Your task to perform on an android device: What is the news today? Image 0: 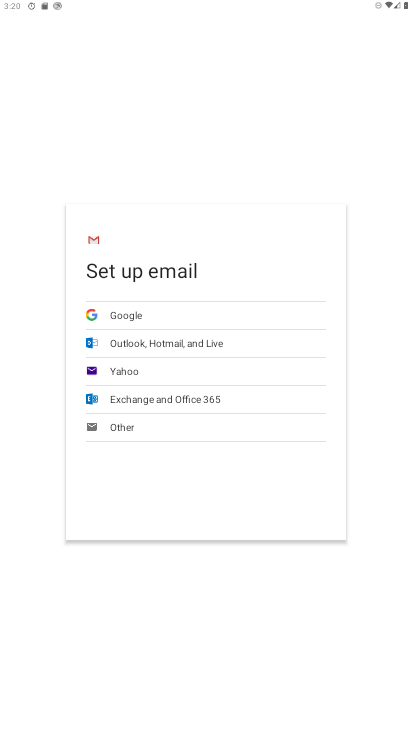
Step 0: drag from (275, 582) to (307, 352)
Your task to perform on an android device: What is the news today? Image 1: 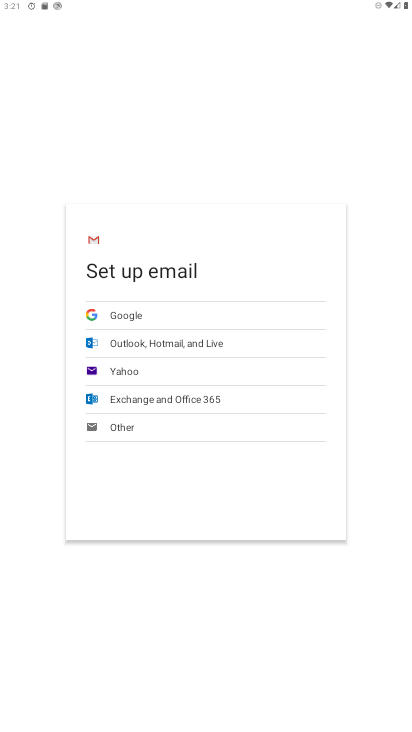
Step 1: drag from (177, 575) to (244, 354)
Your task to perform on an android device: What is the news today? Image 2: 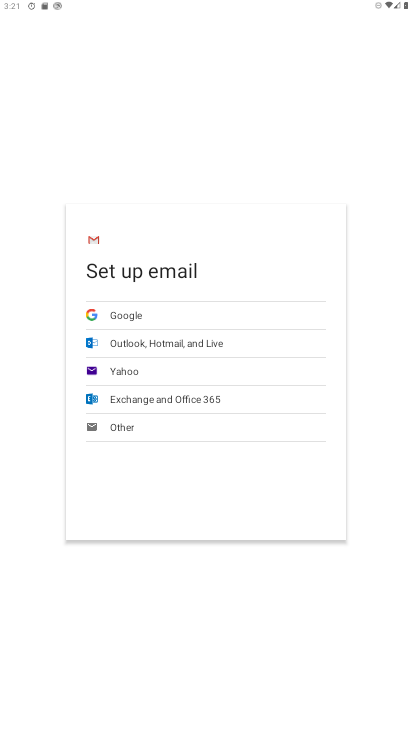
Step 2: drag from (85, 625) to (242, 229)
Your task to perform on an android device: What is the news today? Image 3: 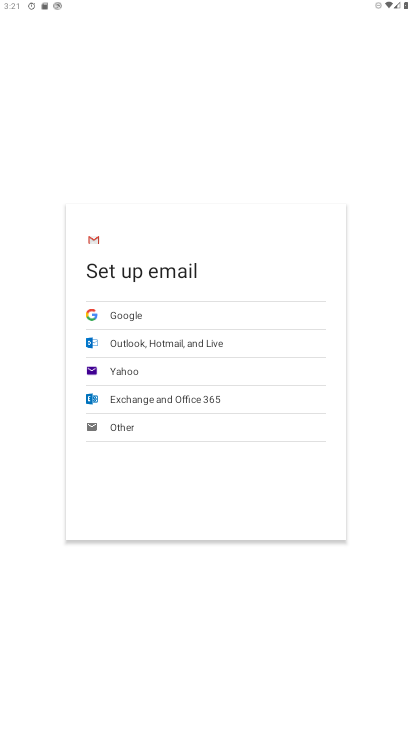
Step 3: drag from (229, 436) to (309, 198)
Your task to perform on an android device: What is the news today? Image 4: 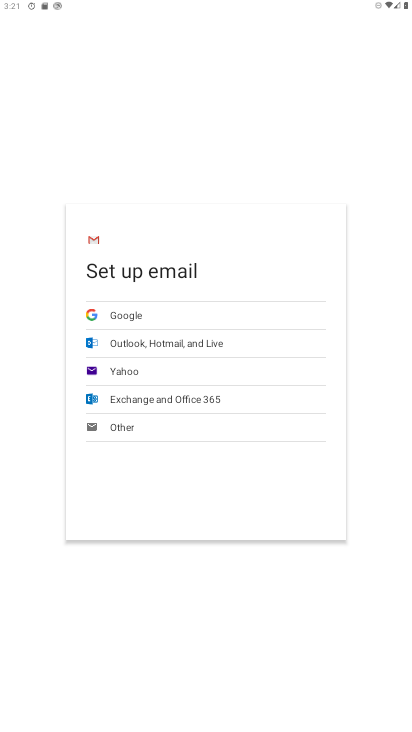
Step 4: press home button
Your task to perform on an android device: What is the news today? Image 5: 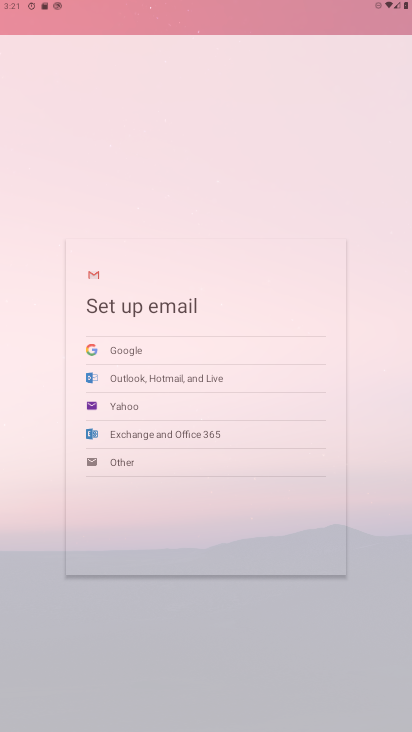
Step 5: drag from (302, 451) to (364, 243)
Your task to perform on an android device: What is the news today? Image 6: 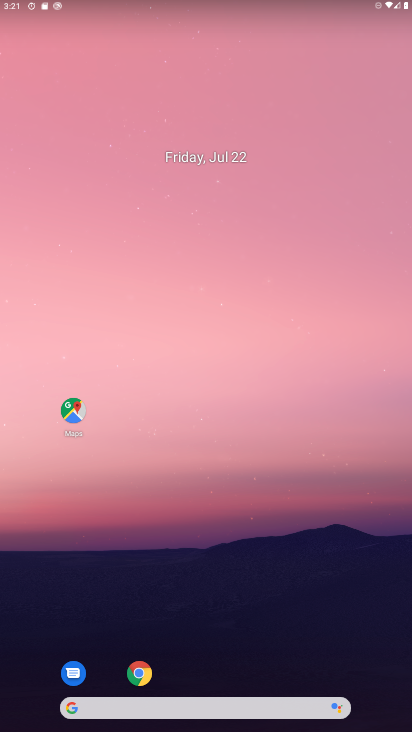
Step 6: drag from (158, 668) to (189, 235)
Your task to perform on an android device: What is the news today? Image 7: 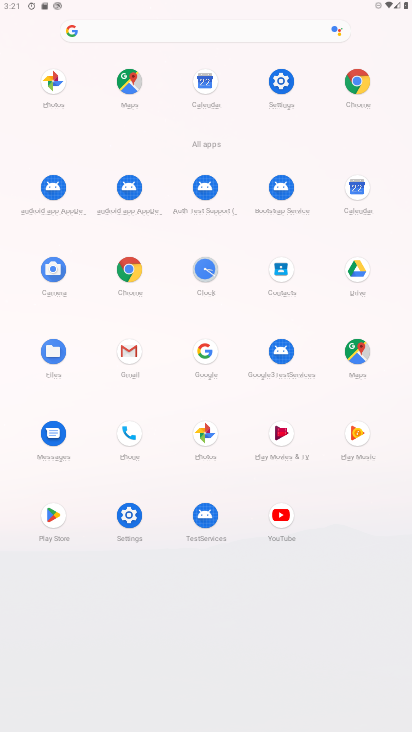
Step 7: click (128, 28)
Your task to perform on an android device: What is the news today? Image 8: 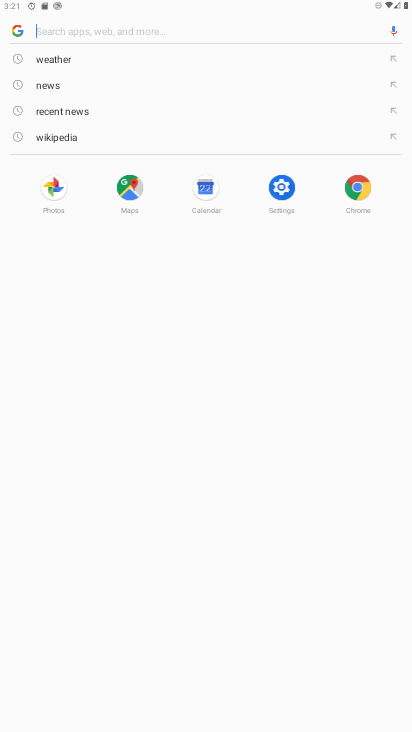
Step 8: click (70, 110)
Your task to perform on an android device: What is the news today? Image 9: 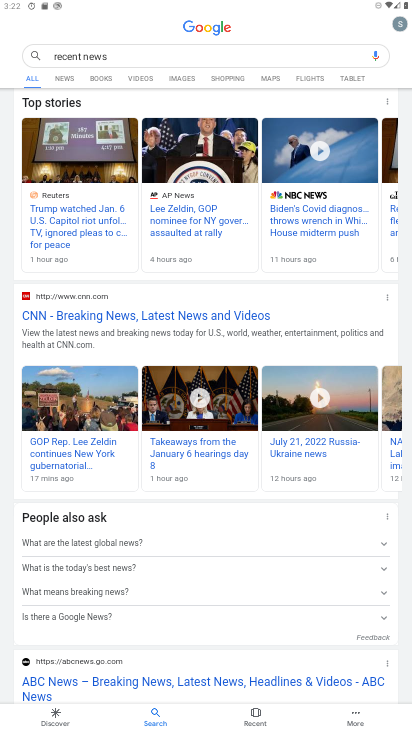
Step 9: click (88, 59)
Your task to perform on an android device: What is the news today? Image 10: 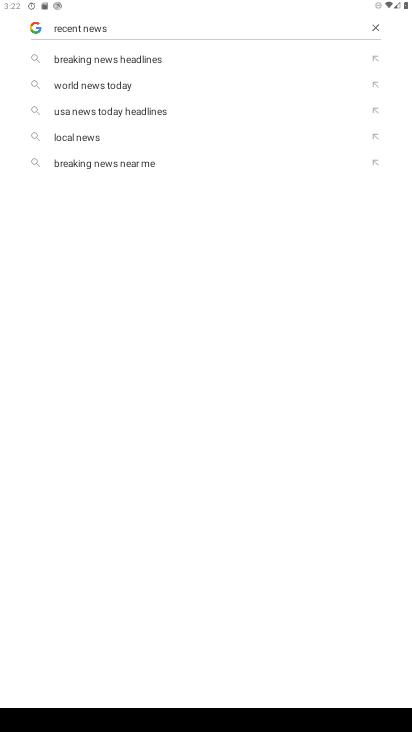
Step 10: click (94, 29)
Your task to perform on an android device: What is the news today? Image 11: 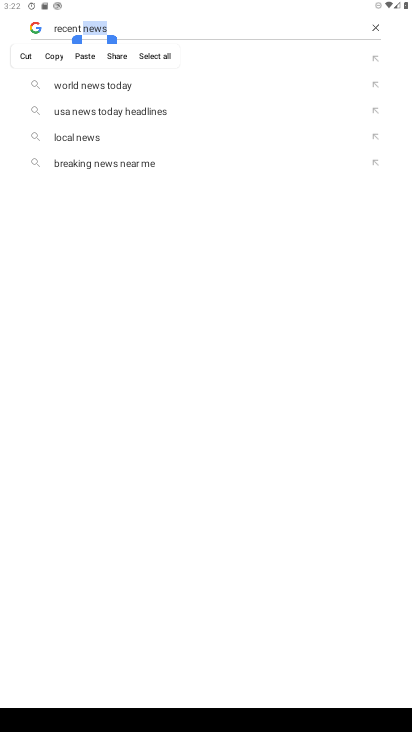
Step 11: click (93, 28)
Your task to perform on an android device: What is the news today? Image 12: 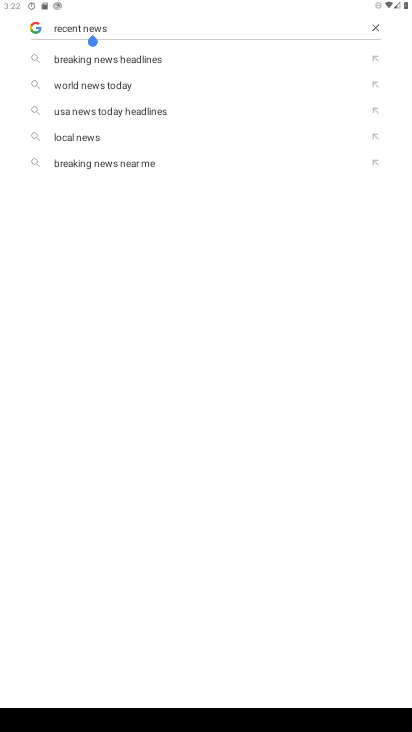
Step 12: click (63, 29)
Your task to perform on an android device: What is the news today? Image 13: 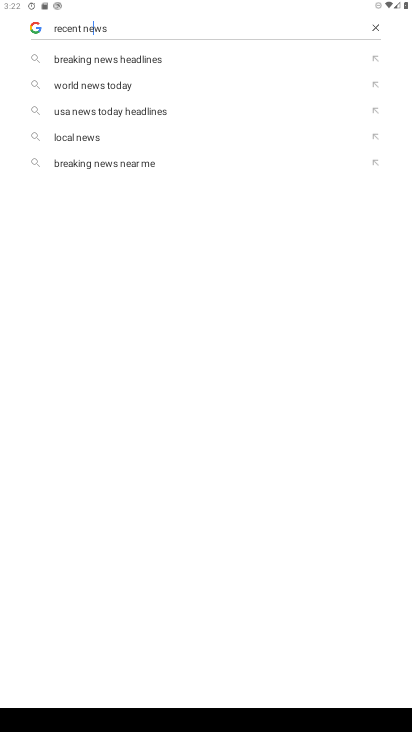
Step 13: click (63, 29)
Your task to perform on an android device: What is the news today? Image 14: 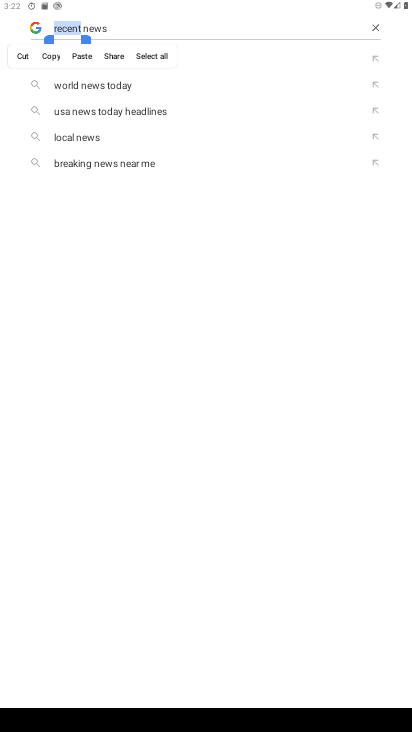
Step 14: drag from (86, 40) to (182, 43)
Your task to perform on an android device: What is the news today? Image 15: 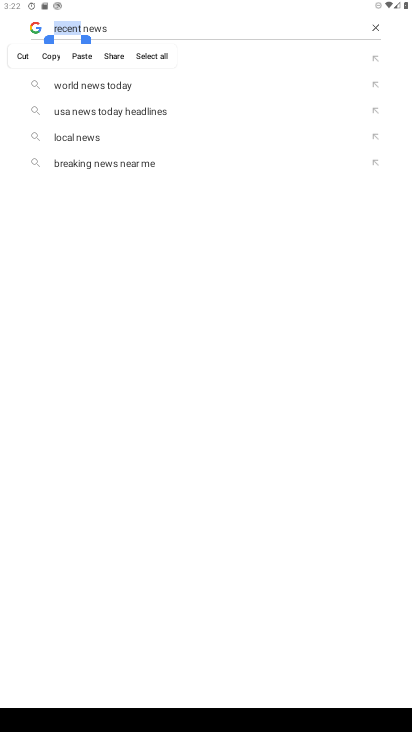
Step 15: drag from (85, 40) to (138, 34)
Your task to perform on an android device: What is the news today? Image 16: 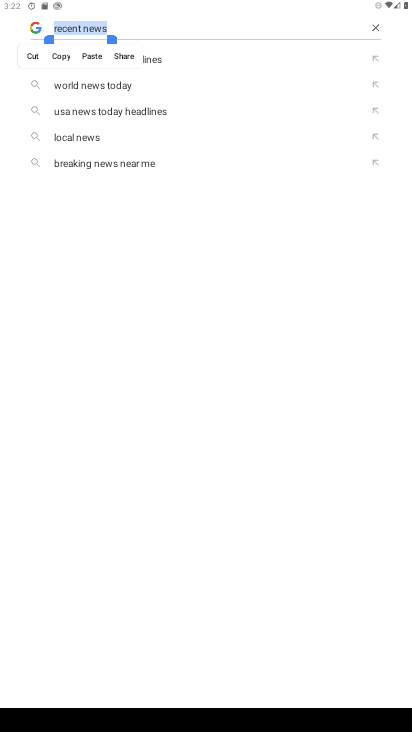
Step 16: click (375, 26)
Your task to perform on an android device: What is the news today? Image 17: 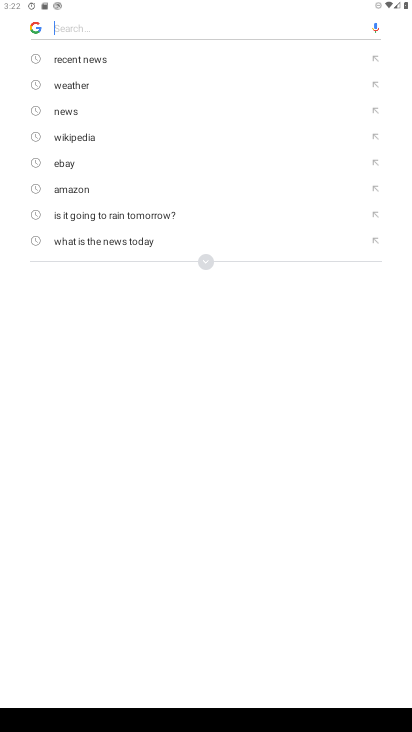
Step 17: type "news today?"
Your task to perform on an android device: What is the news today? Image 18: 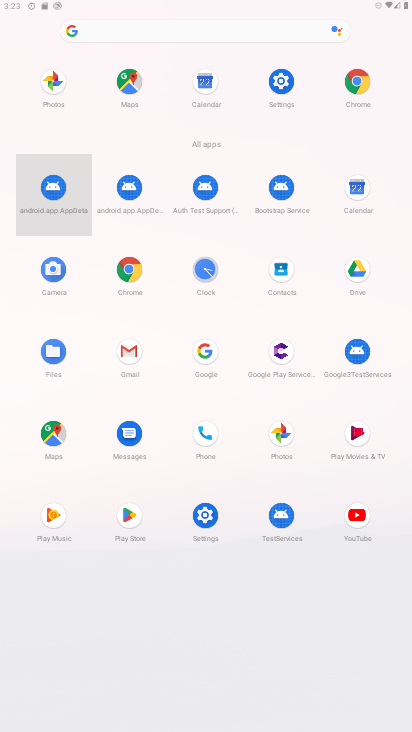
Step 18: click (181, 31)
Your task to perform on an android device: What is the news today? Image 19: 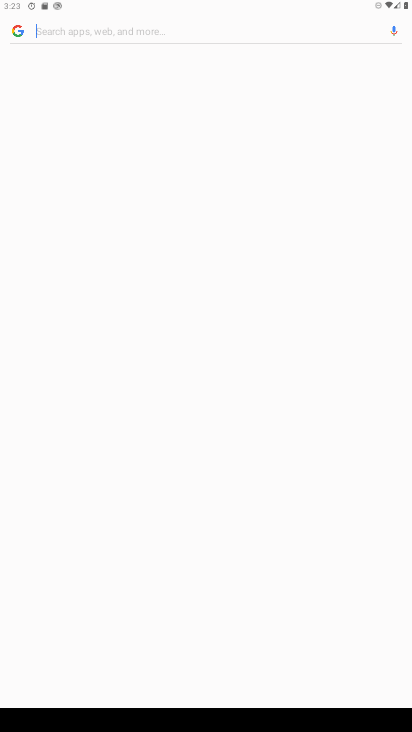
Step 19: click (132, 17)
Your task to perform on an android device: What is the news today? Image 20: 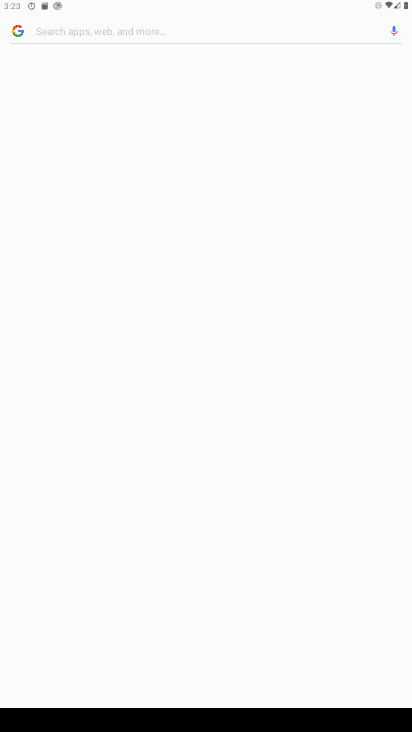
Step 20: click (107, 34)
Your task to perform on an android device: What is the news today? Image 21: 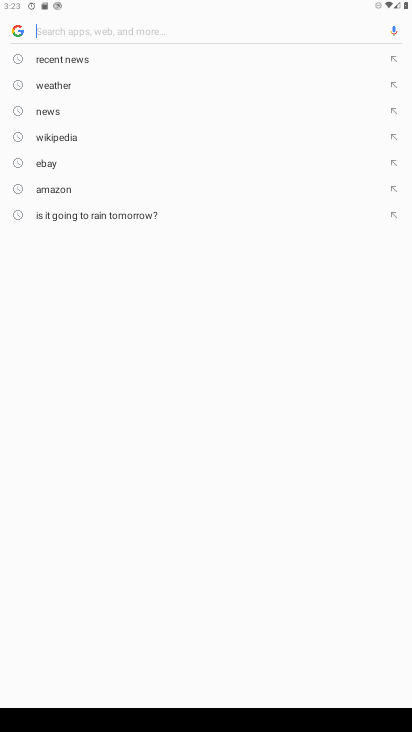
Step 21: type "news today?"
Your task to perform on an android device: What is the news today? Image 22: 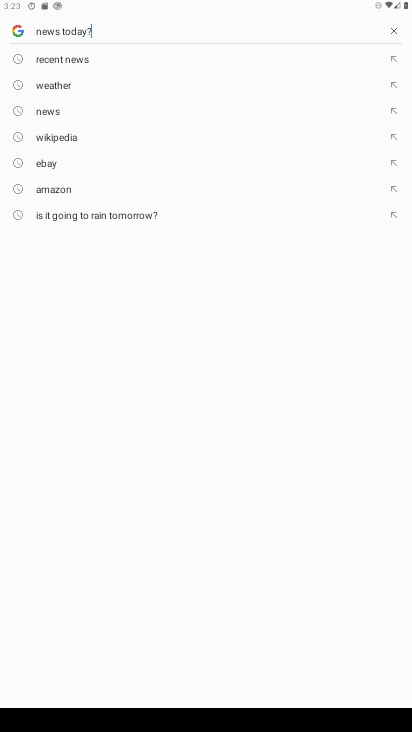
Step 22: type ""
Your task to perform on an android device: What is the news today? Image 23: 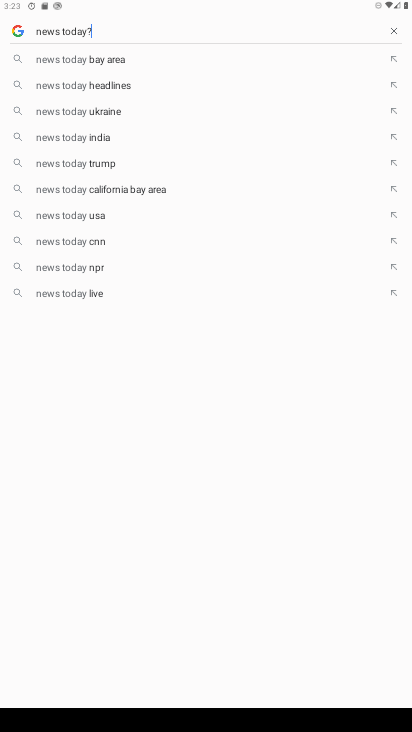
Step 23: click (78, 59)
Your task to perform on an android device: What is the news today? Image 24: 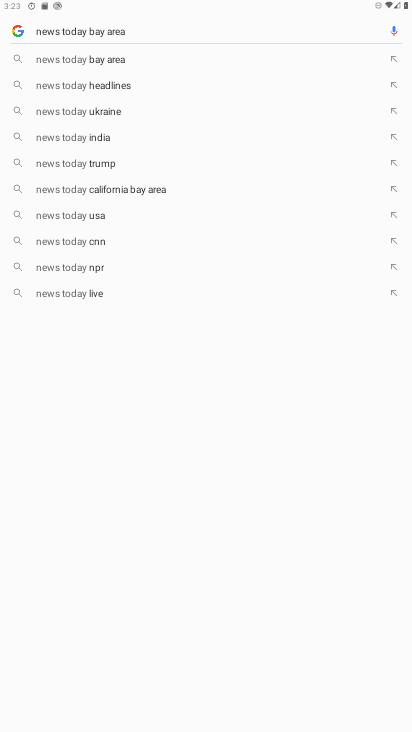
Step 24: task complete